Your task to perform on an android device: When is my next appointment? Image 0: 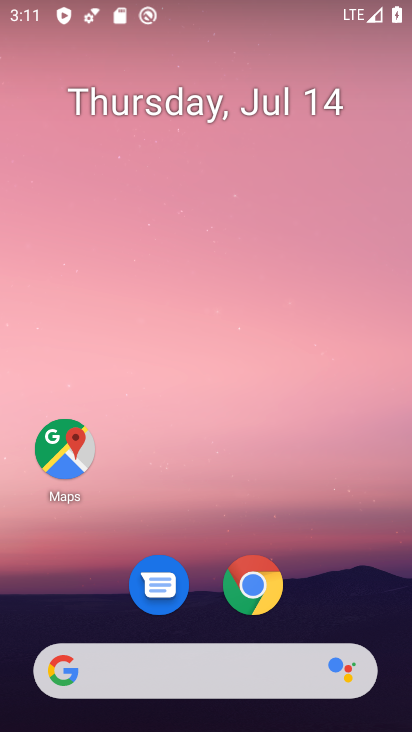
Step 0: drag from (352, 560) to (310, 97)
Your task to perform on an android device: When is my next appointment? Image 1: 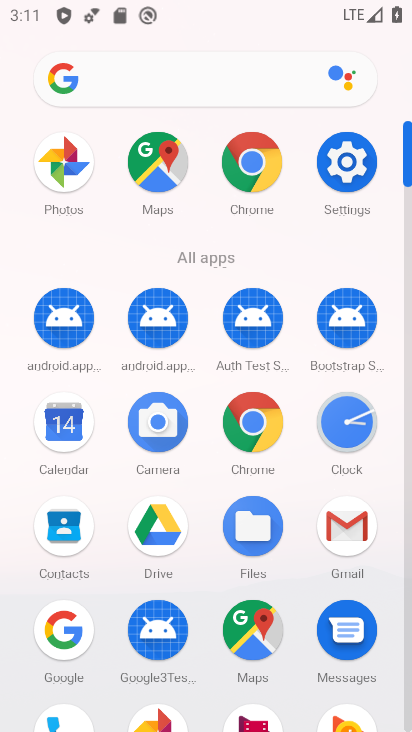
Step 1: click (66, 423)
Your task to perform on an android device: When is my next appointment? Image 2: 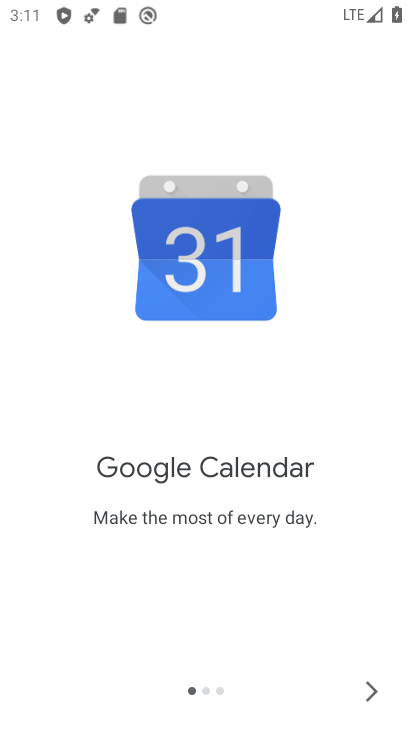
Step 2: click (366, 694)
Your task to perform on an android device: When is my next appointment? Image 3: 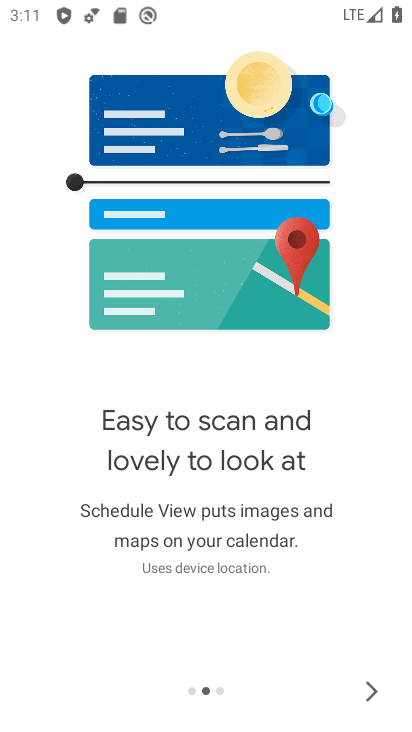
Step 3: click (366, 694)
Your task to perform on an android device: When is my next appointment? Image 4: 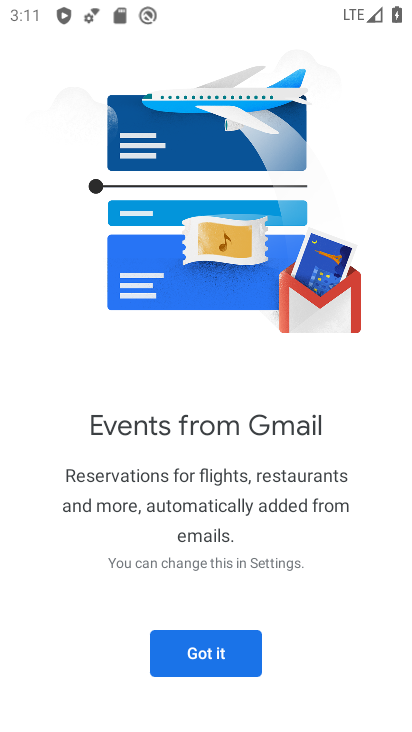
Step 4: click (254, 649)
Your task to perform on an android device: When is my next appointment? Image 5: 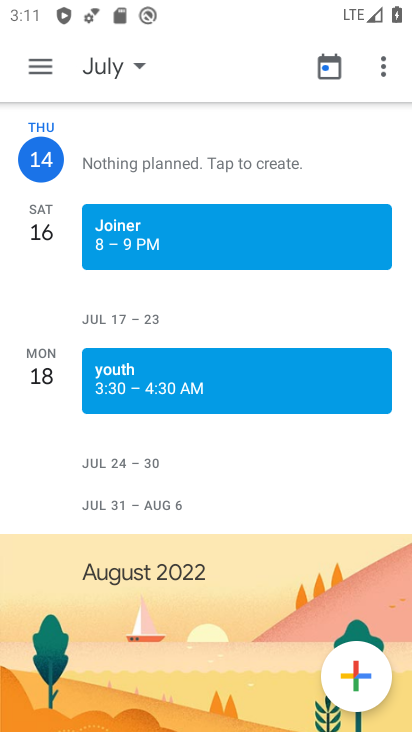
Step 5: task complete